Your task to perform on an android device: turn on airplane mode Image 0: 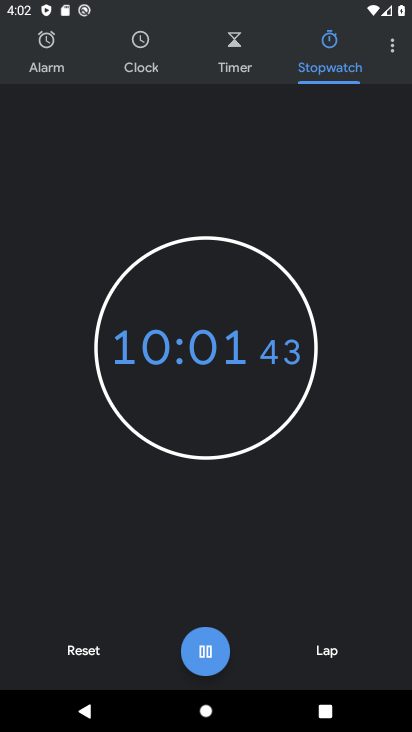
Step 0: press home button
Your task to perform on an android device: turn on airplane mode Image 1: 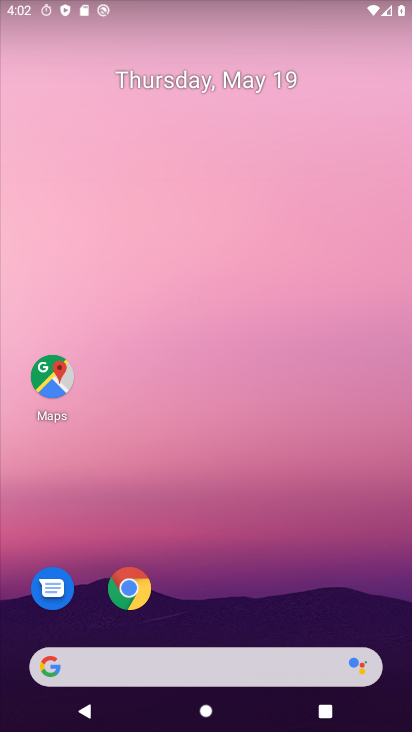
Step 1: drag from (249, 616) to (312, 88)
Your task to perform on an android device: turn on airplane mode Image 2: 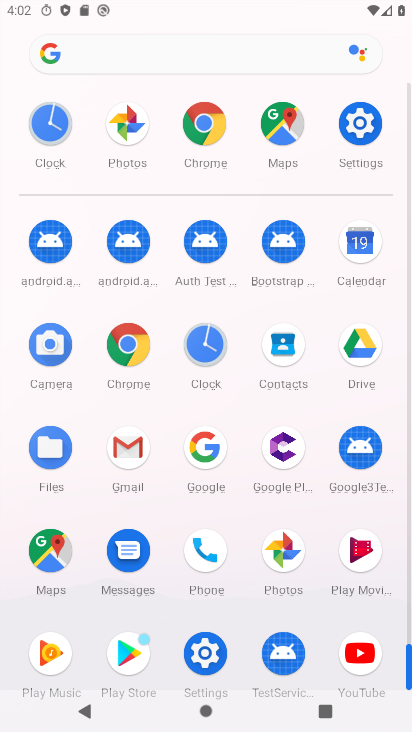
Step 2: click (207, 648)
Your task to perform on an android device: turn on airplane mode Image 3: 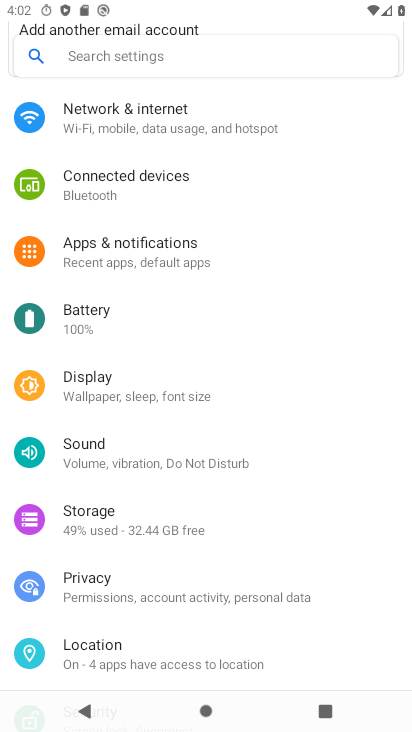
Step 3: click (158, 126)
Your task to perform on an android device: turn on airplane mode Image 4: 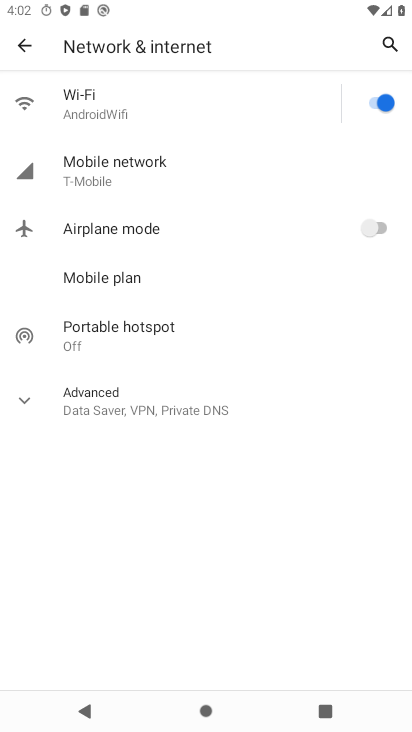
Step 4: click (384, 225)
Your task to perform on an android device: turn on airplane mode Image 5: 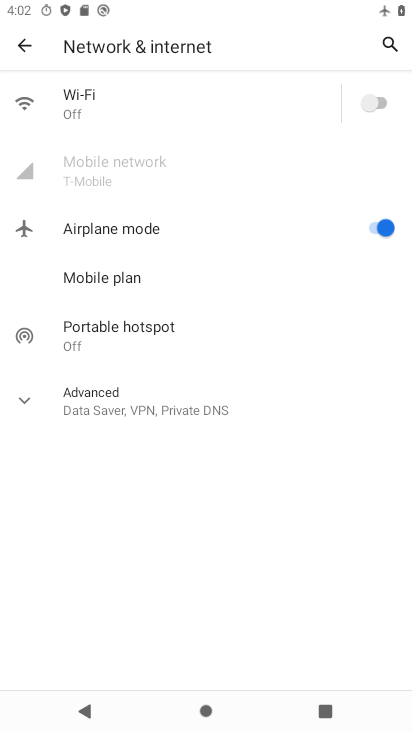
Step 5: task complete